Your task to perform on an android device: toggle data saver in the chrome app Image 0: 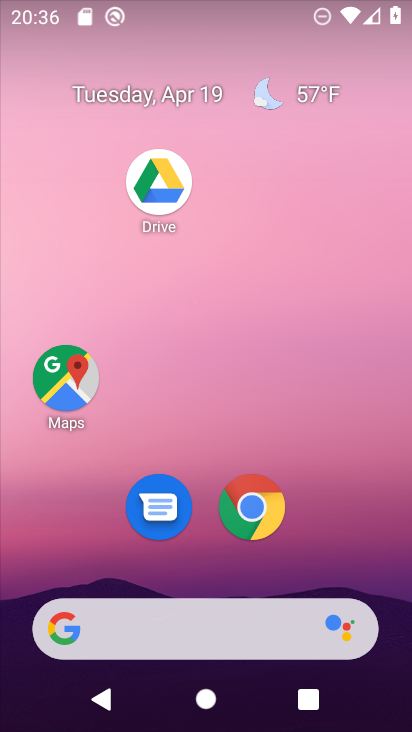
Step 0: click (260, 508)
Your task to perform on an android device: toggle data saver in the chrome app Image 1: 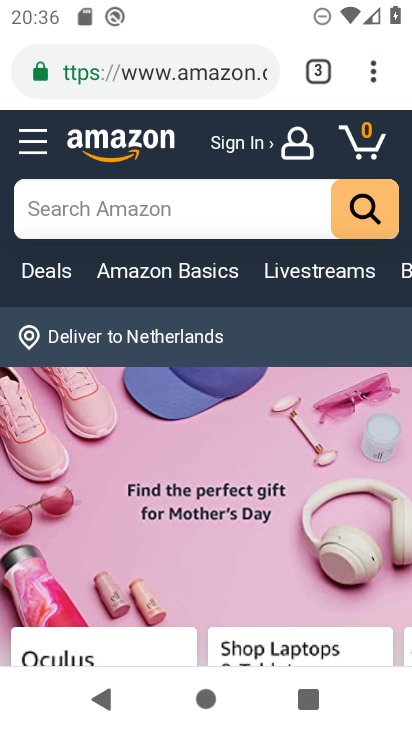
Step 1: drag from (369, 66) to (262, 500)
Your task to perform on an android device: toggle data saver in the chrome app Image 2: 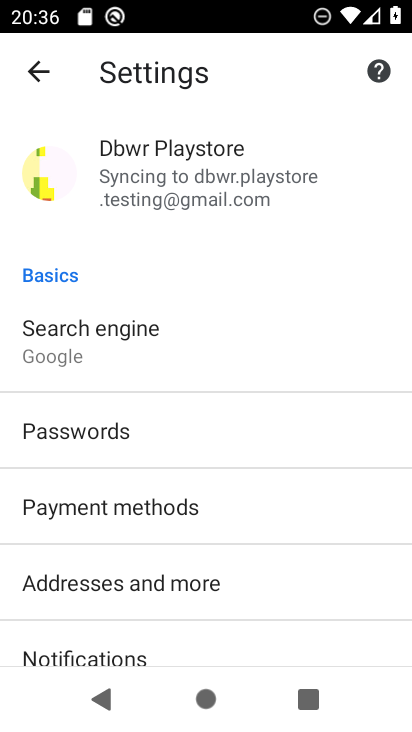
Step 2: drag from (286, 577) to (290, 258)
Your task to perform on an android device: toggle data saver in the chrome app Image 3: 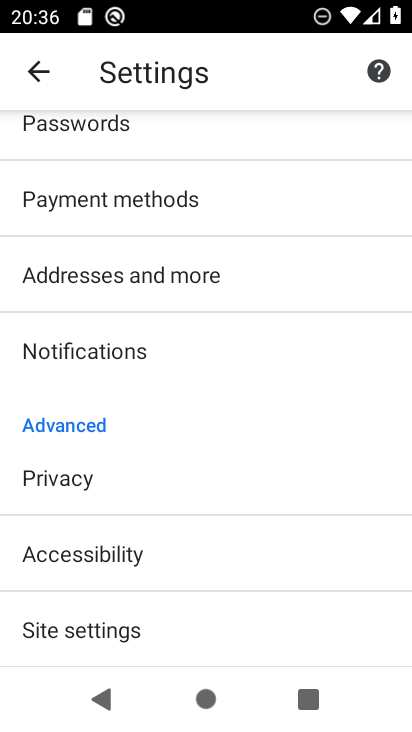
Step 3: drag from (234, 564) to (271, 201)
Your task to perform on an android device: toggle data saver in the chrome app Image 4: 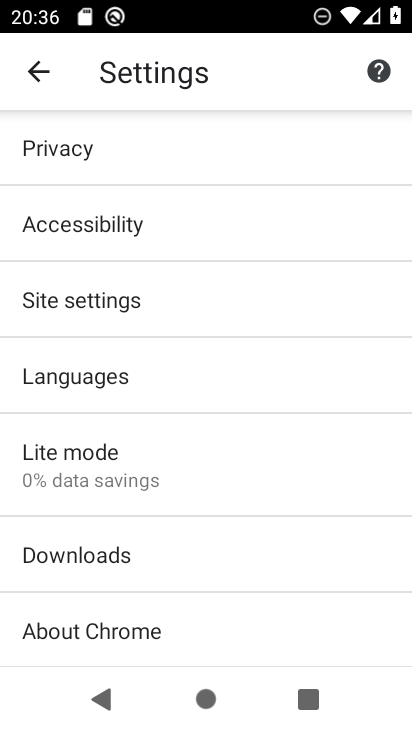
Step 4: click (187, 464)
Your task to perform on an android device: toggle data saver in the chrome app Image 5: 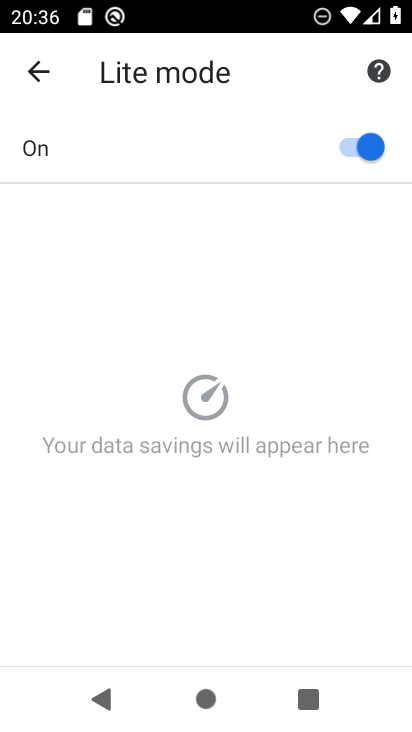
Step 5: click (351, 142)
Your task to perform on an android device: toggle data saver in the chrome app Image 6: 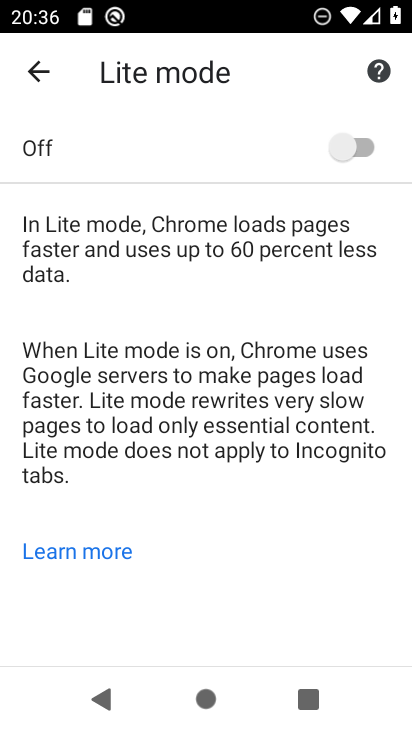
Step 6: task complete